Your task to perform on an android device: stop showing notifications on the lock screen Image 0: 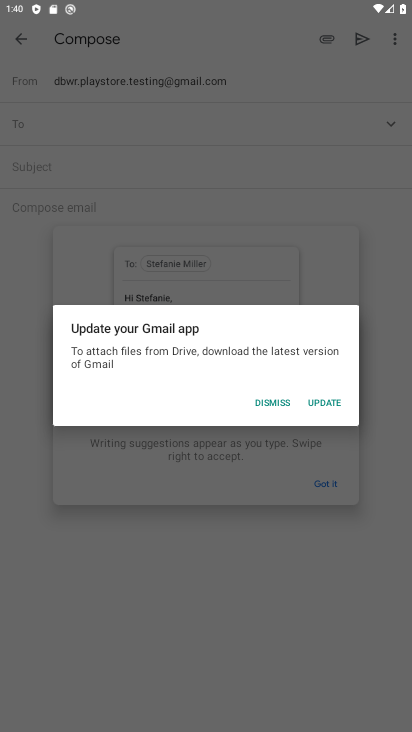
Step 0: press home button
Your task to perform on an android device: stop showing notifications on the lock screen Image 1: 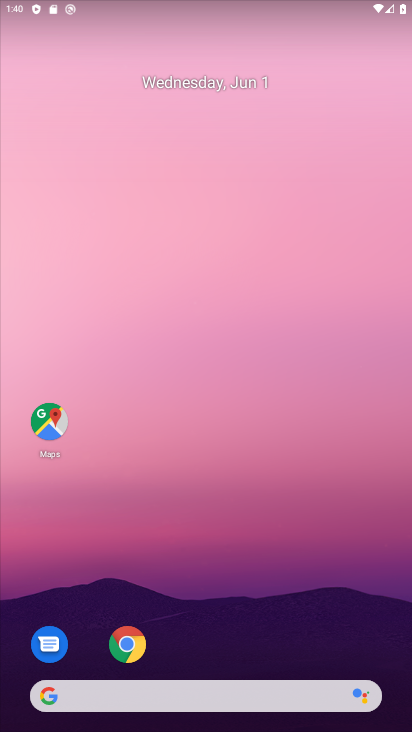
Step 1: drag from (207, 565) to (364, 85)
Your task to perform on an android device: stop showing notifications on the lock screen Image 2: 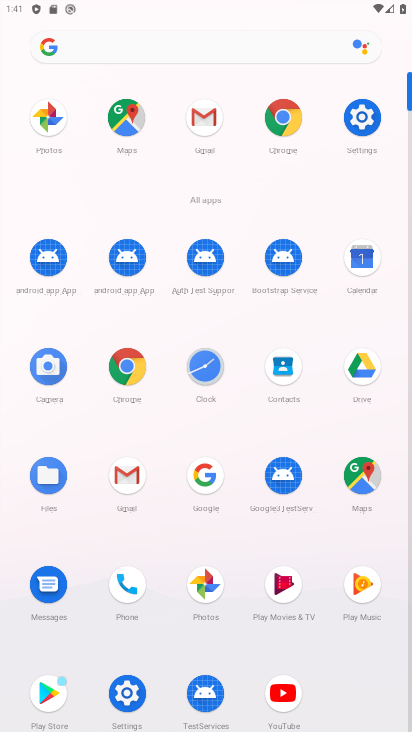
Step 2: click (360, 119)
Your task to perform on an android device: stop showing notifications on the lock screen Image 3: 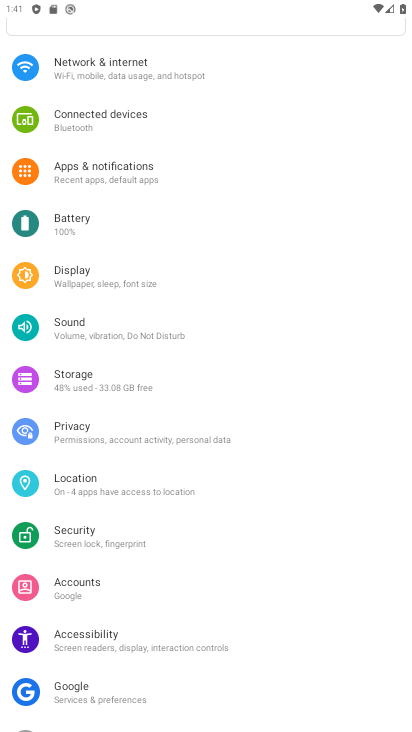
Step 3: click (126, 175)
Your task to perform on an android device: stop showing notifications on the lock screen Image 4: 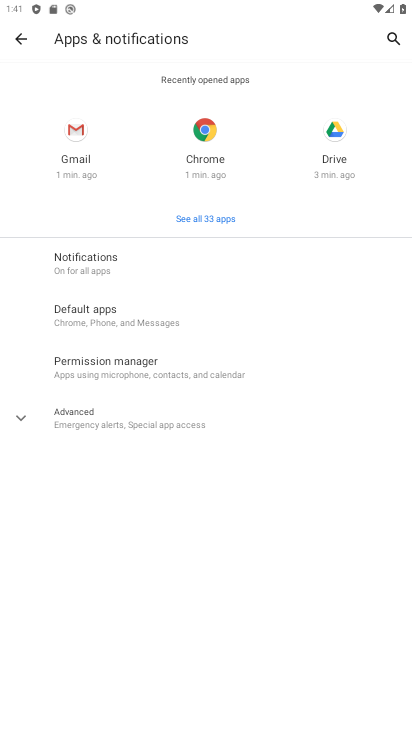
Step 4: click (107, 268)
Your task to perform on an android device: stop showing notifications on the lock screen Image 5: 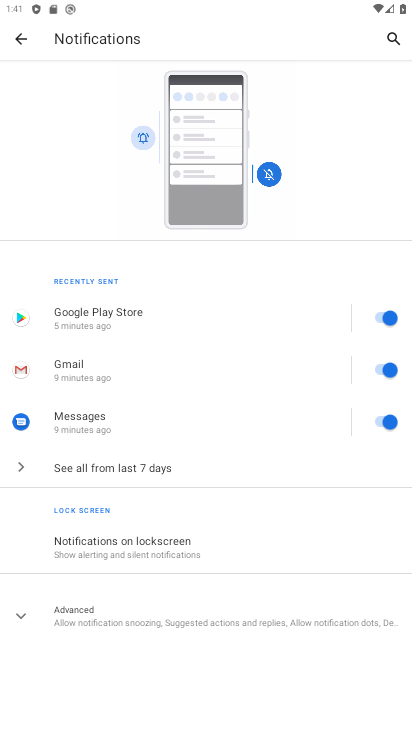
Step 5: click (125, 548)
Your task to perform on an android device: stop showing notifications on the lock screen Image 6: 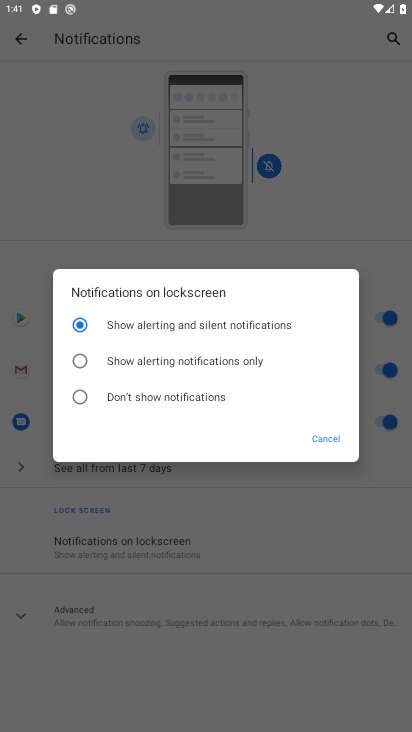
Step 6: click (155, 393)
Your task to perform on an android device: stop showing notifications on the lock screen Image 7: 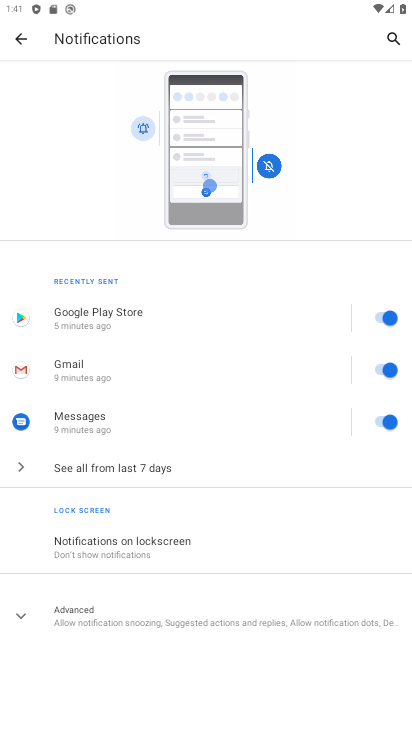
Step 7: task complete